Your task to perform on an android device: Search for vegetarian restaurants on Maps Image 0: 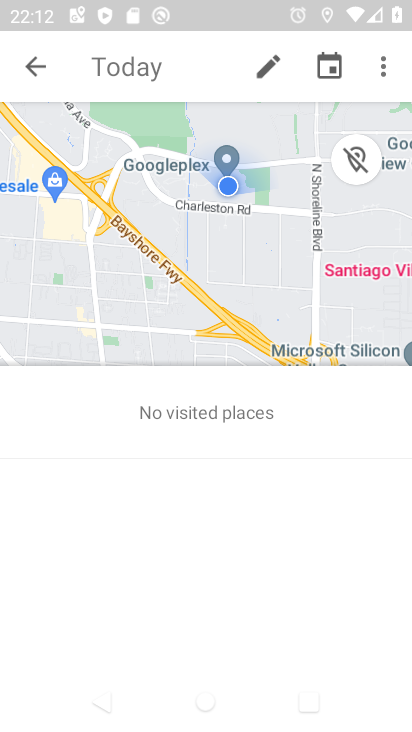
Step 0: press home button
Your task to perform on an android device: Search for vegetarian restaurants on Maps Image 1: 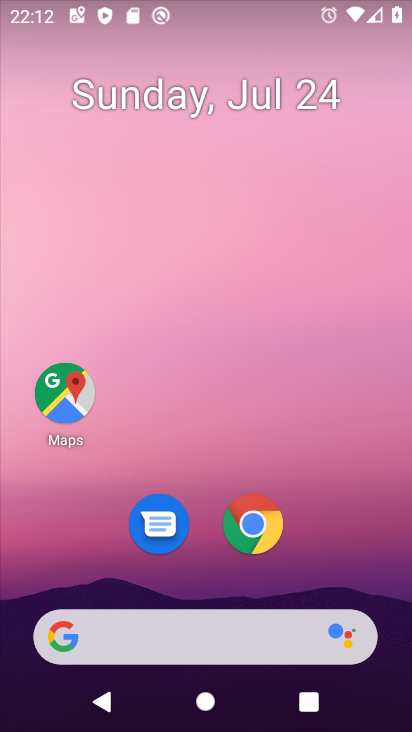
Step 1: click (65, 400)
Your task to perform on an android device: Search for vegetarian restaurants on Maps Image 2: 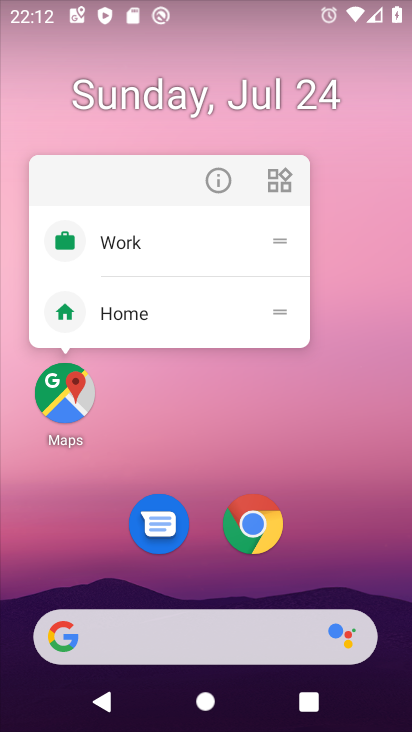
Step 2: click (57, 407)
Your task to perform on an android device: Search for vegetarian restaurants on Maps Image 3: 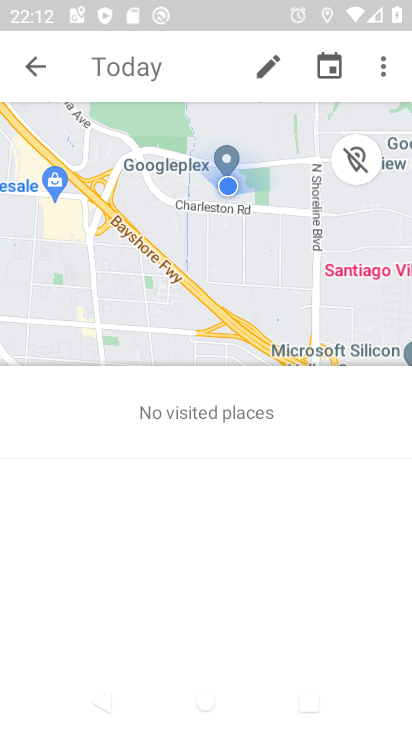
Step 3: click (39, 67)
Your task to perform on an android device: Search for vegetarian restaurants on Maps Image 4: 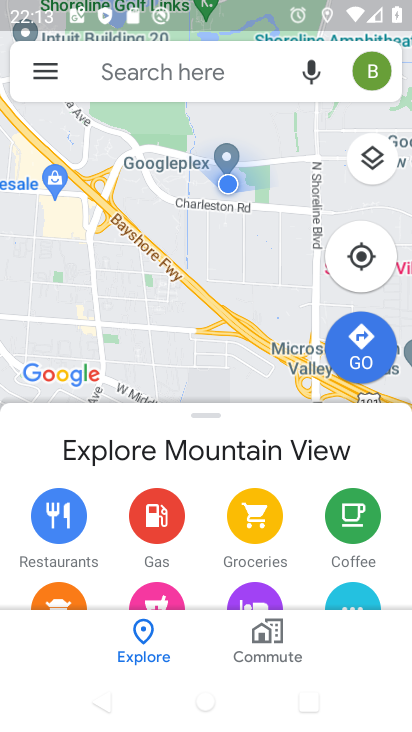
Step 4: click (135, 81)
Your task to perform on an android device: Search for vegetarian restaurants on Maps Image 5: 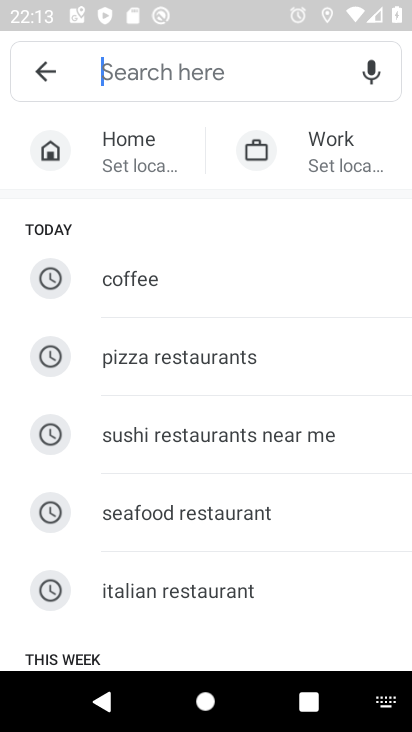
Step 5: drag from (213, 579) to (323, 121)
Your task to perform on an android device: Search for vegetarian restaurants on Maps Image 6: 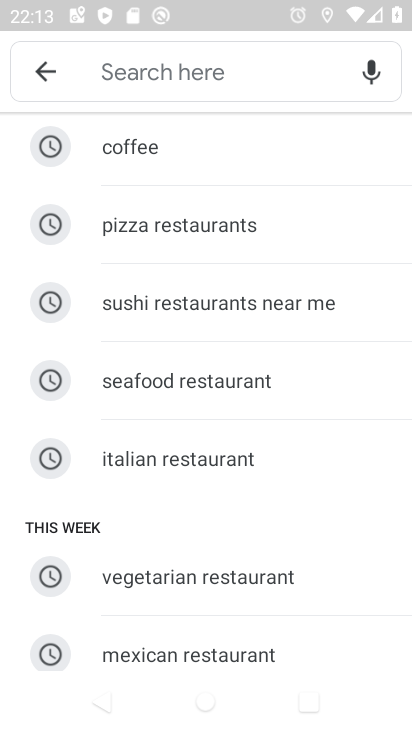
Step 6: click (163, 578)
Your task to perform on an android device: Search for vegetarian restaurants on Maps Image 7: 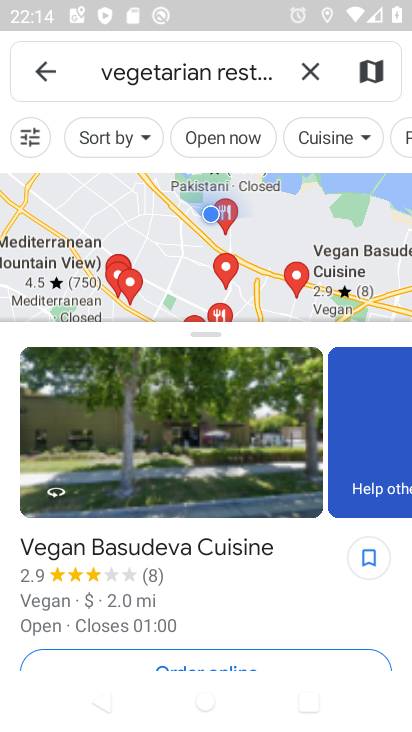
Step 7: task complete